Your task to perform on an android device: delete the emails in spam in the gmail app Image 0: 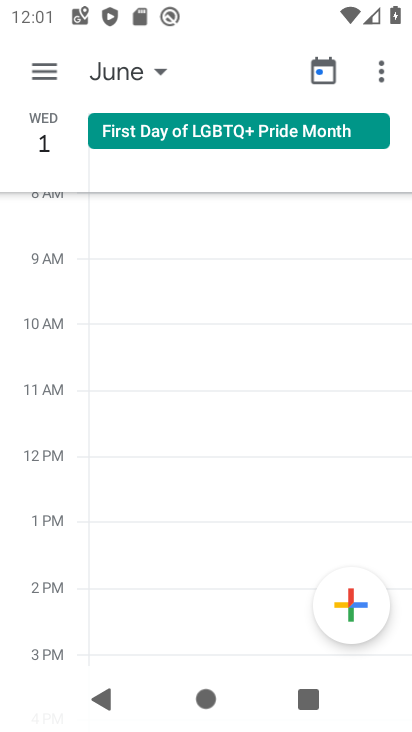
Step 0: press home button
Your task to perform on an android device: delete the emails in spam in the gmail app Image 1: 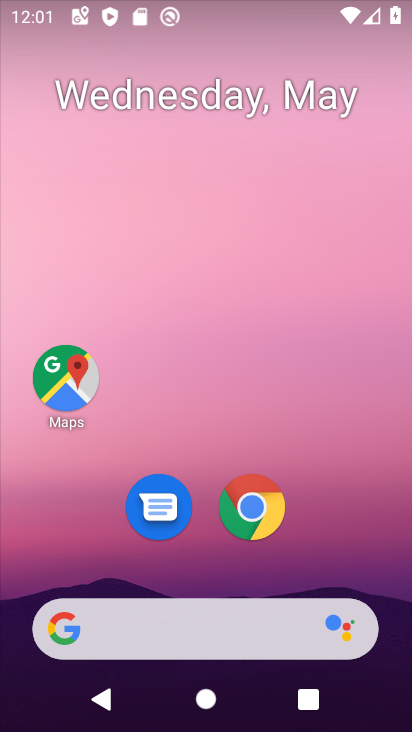
Step 1: drag from (329, 494) to (324, 165)
Your task to perform on an android device: delete the emails in spam in the gmail app Image 2: 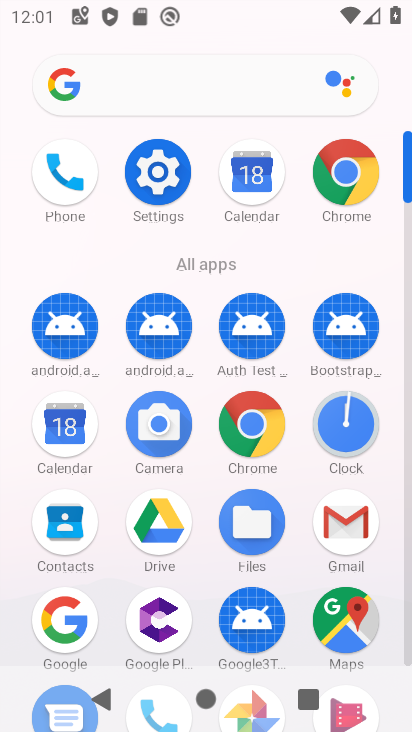
Step 2: click (338, 526)
Your task to perform on an android device: delete the emails in spam in the gmail app Image 3: 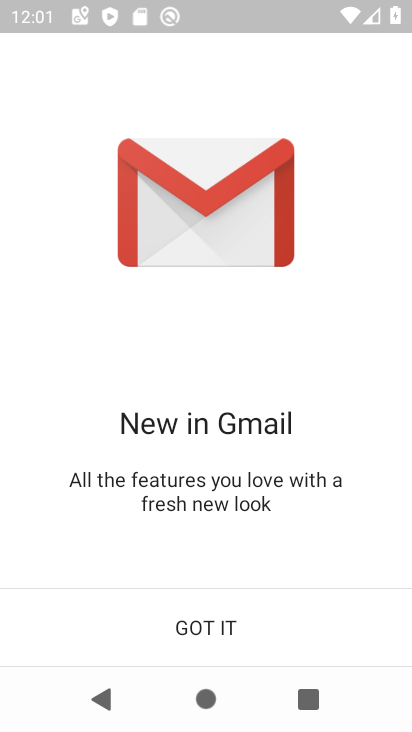
Step 3: click (205, 622)
Your task to perform on an android device: delete the emails in spam in the gmail app Image 4: 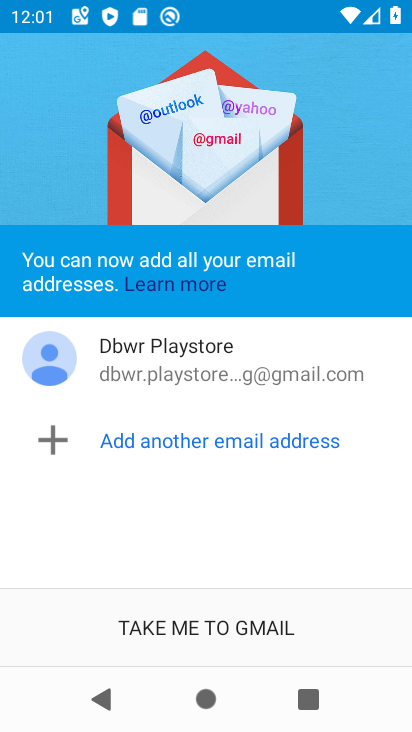
Step 4: click (206, 623)
Your task to perform on an android device: delete the emails in spam in the gmail app Image 5: 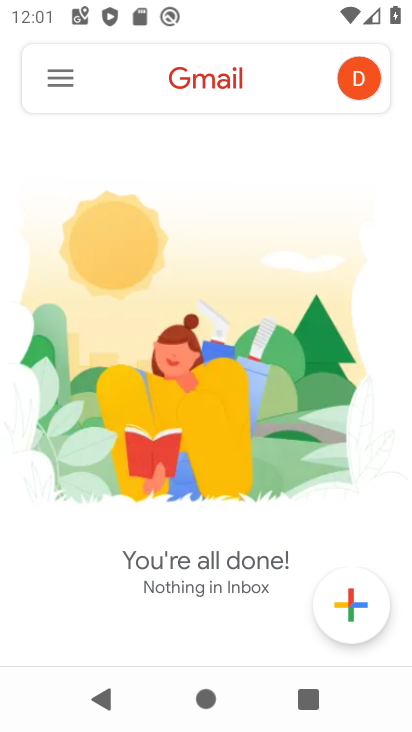
Step 5: click (54, 67)
Your task to perform on an android device: delete the emails in spam in the gmail app Image 6: 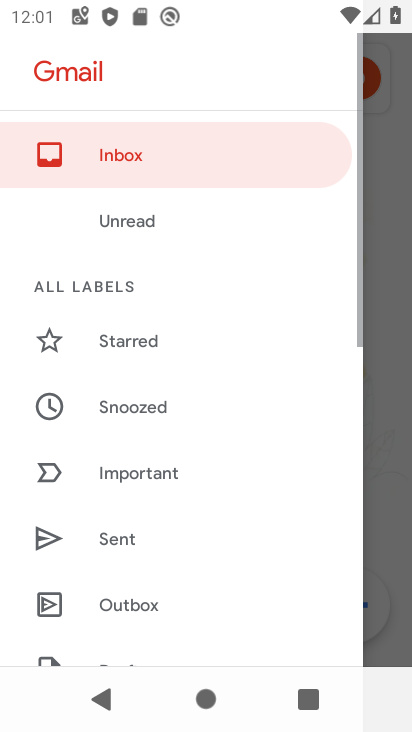
Step 6: drag from (124, 577) to (157, 297)
Your task to perform on an android device: delete the emails in spam in the gmail app Image 7: 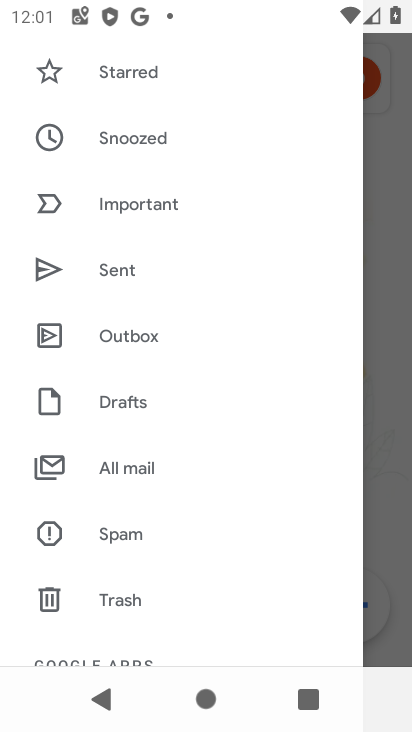
Step 7: click (133, 533)
Your task to perform on an android device: delete the emails in spam in the gmail app Image 8: 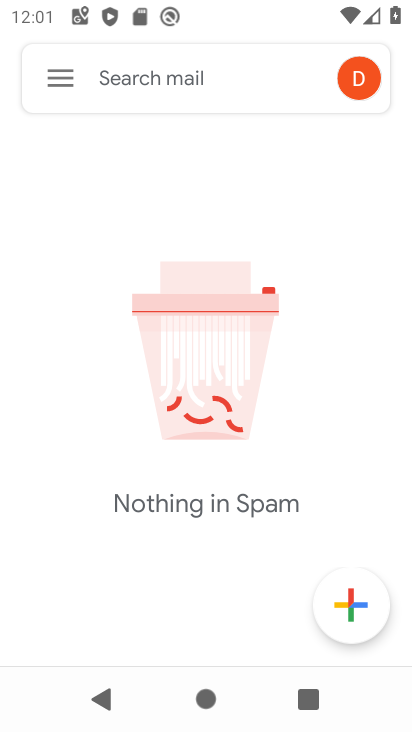
Step 8: task complete